Your task to perform on an android device: turn notification dots on Image 0: 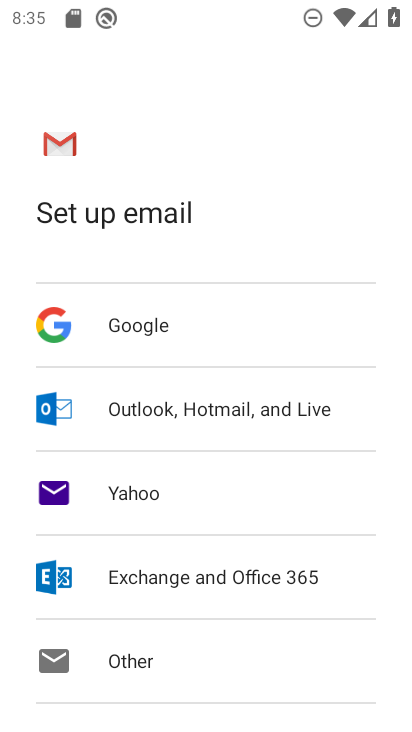
Step 0: press home button
Your task to perform on an android device: turn notification dots on Image 1: 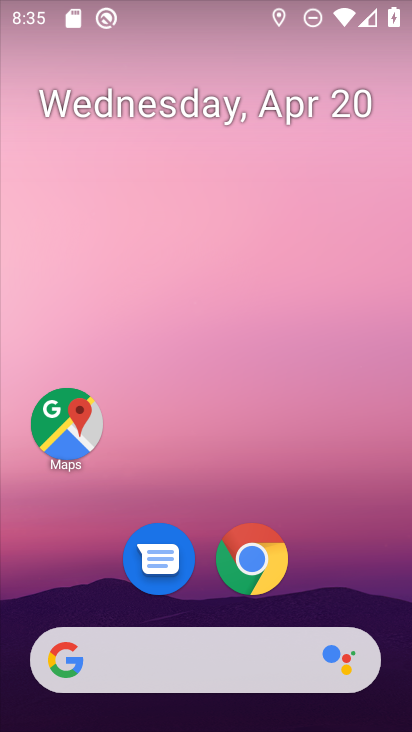
Step 1: drag from (366, 604) to (281, 144)
Your task to perform on an android device: turn notification dots on Image 2: 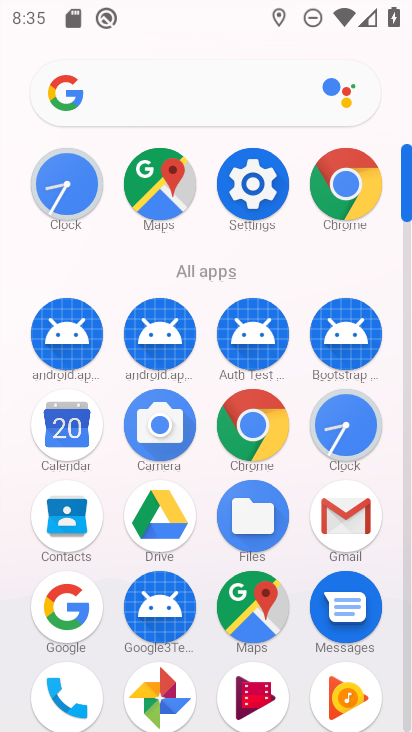
Step 2: click (405, 689)
Your task to perform on an android device: turn notification dots on Image 3: 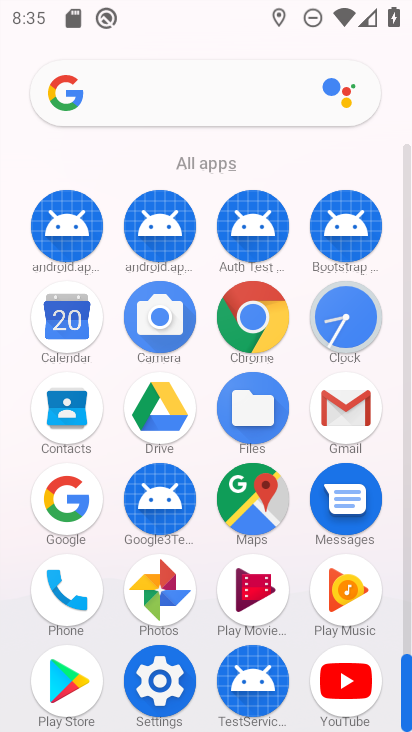
Step 3: click (159, 678)
Your task to perform on an android device: turn notification dots on Image 4: 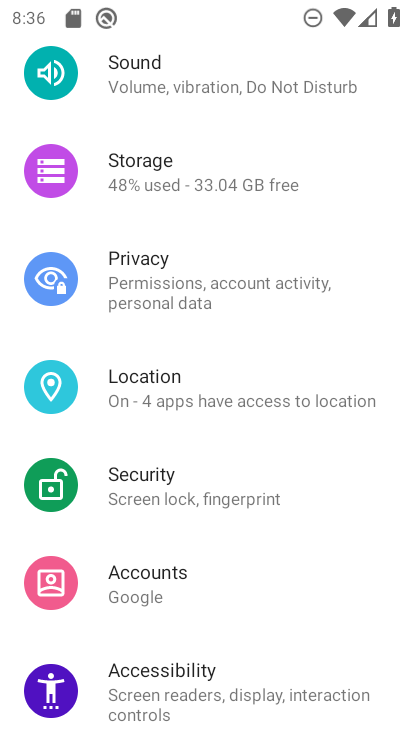
Step 4: drag from (351, 212) to (350, 517)
Your task to perform on an android device: turn notification dots on Image 5: 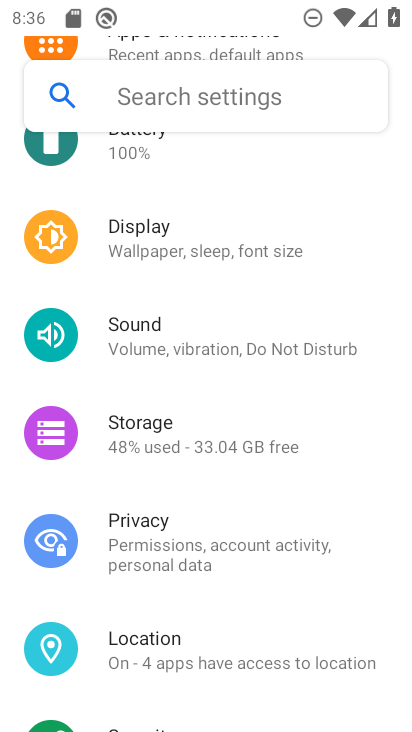
Step 5: drag from (347, 290) to (358, 569)
Your task to perform on an android device: turn notification dots on Image 6: 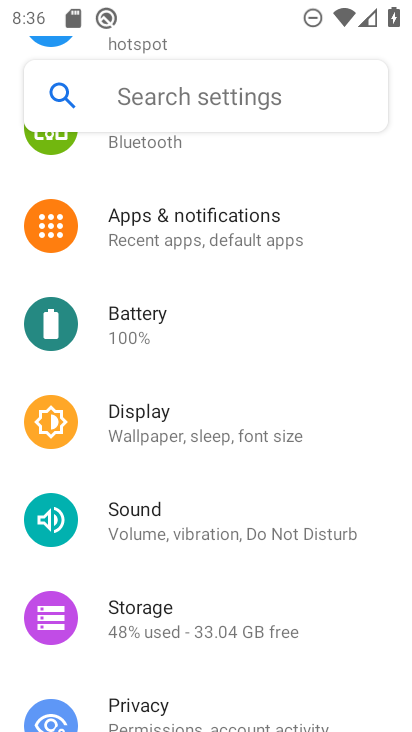
Step 6: click (168, 217)
Your task to perform on an android device: turn notification dots on Image 7: 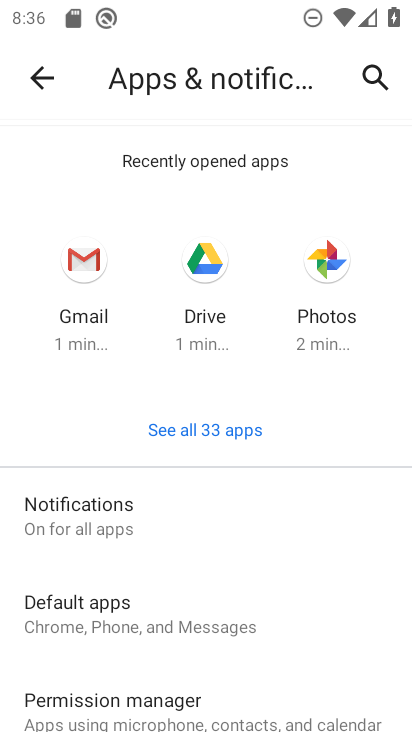
Step 7: click (89, 530)
Your task to perform on an android device: turn notification dots on Image 8: 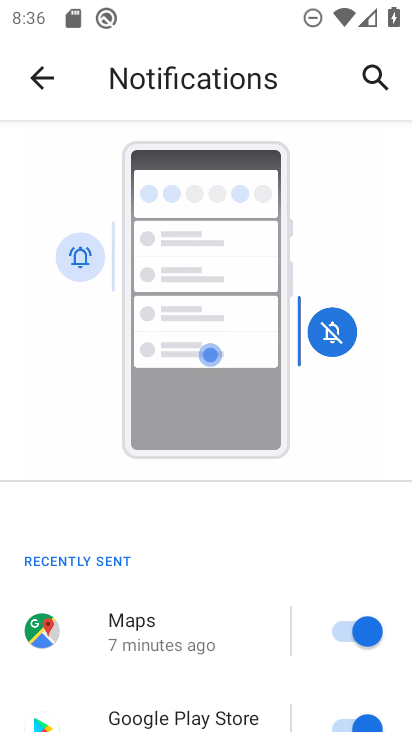
Step 8: drag from (306, 639) to (217, 291)
Your task to perform on an android device: turn notification dots on Image 9: 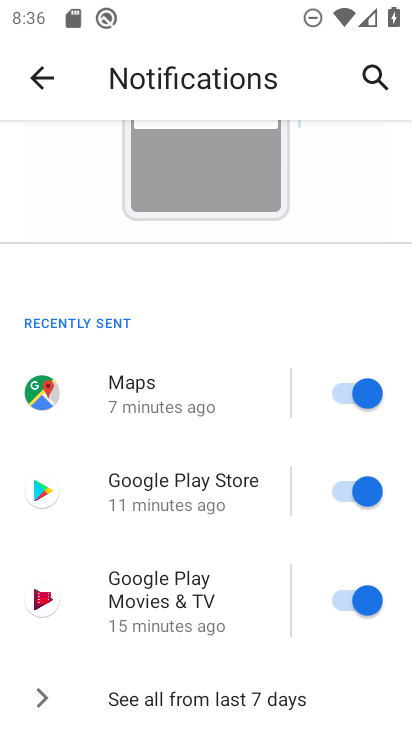
Step 9: drag from (291, 655) to (232, 280)
Your task to perform on an android device: turn notification dots on Image 10: 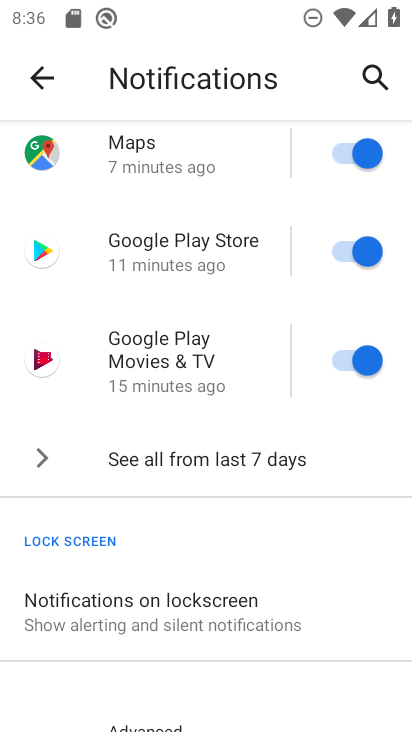
Step 10: drag from (277, 620) to (256, 312)
Your task to perform on an android device: turn notification dots on Image 11: 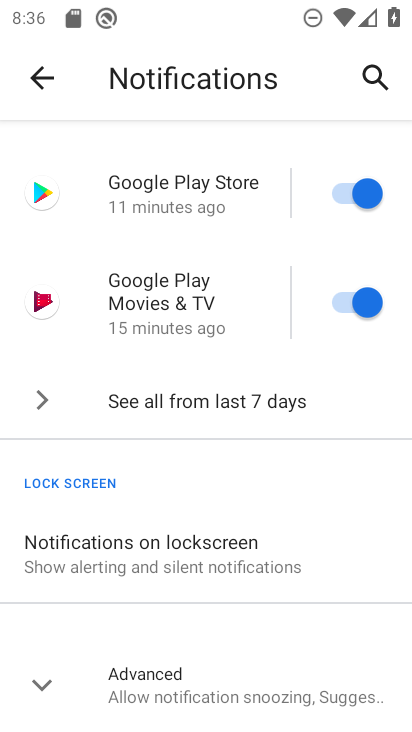
Step 11: click (43, 687)
Your task to perform on an android device: turn notification dots on Image 12: 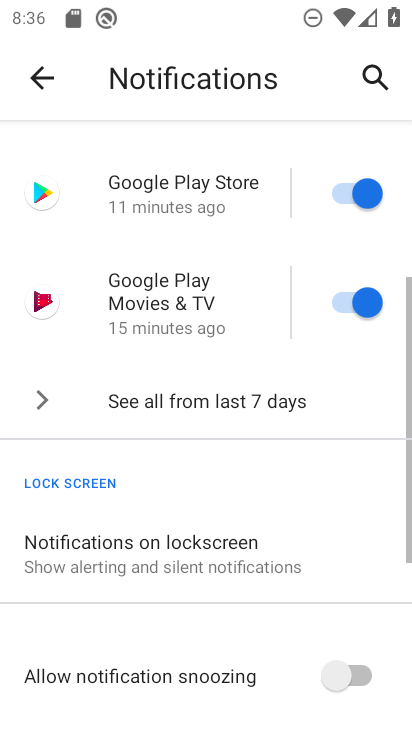
Step 12: task complete